Your task to perform on an android device: see tabs open on other devices in the chrome app Image 0: 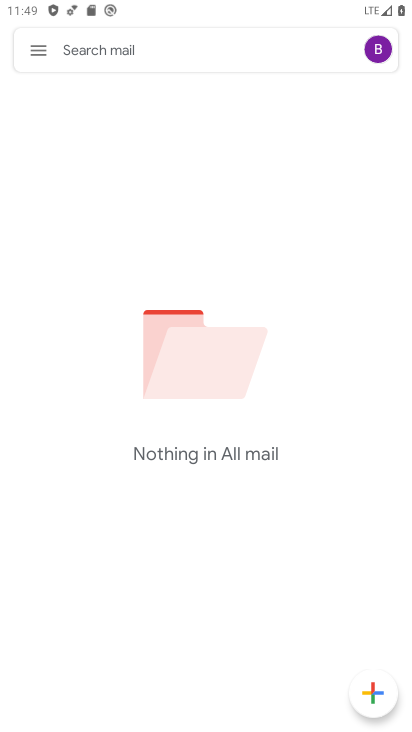
Step 0: press home button
Your task to perform on an android device: see tabs open on other devices in the chrome app Image 1: 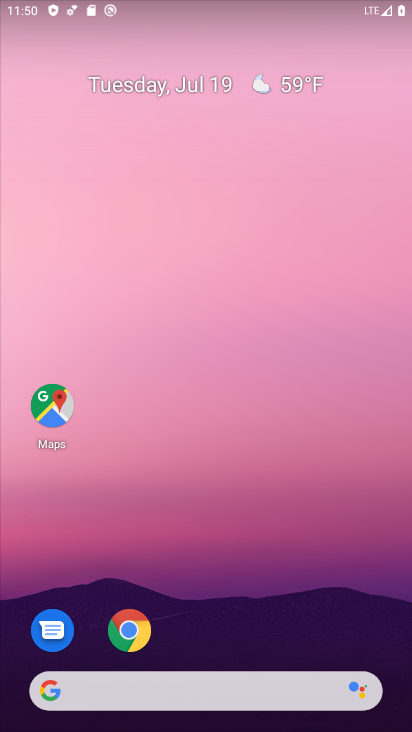
Step 1: drag from (188, 632) to (217, 137)
Your task to perform on an android device: see tabs open on other devices in the chrome app Image 2: 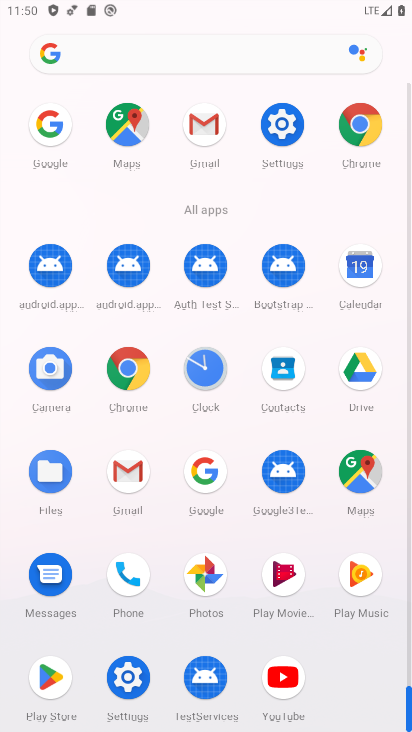
Step 2: click (343, 116)
Your task to perform on an android device: see tabs open on other devices in the chrome app Image 3: 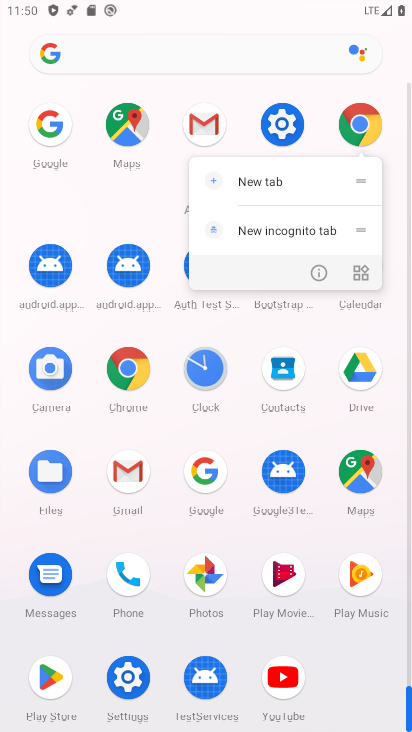
Step 3: click (373, 137)
Your task to perform on an android device: see tabs open on other devices in the chrome app Image 4: 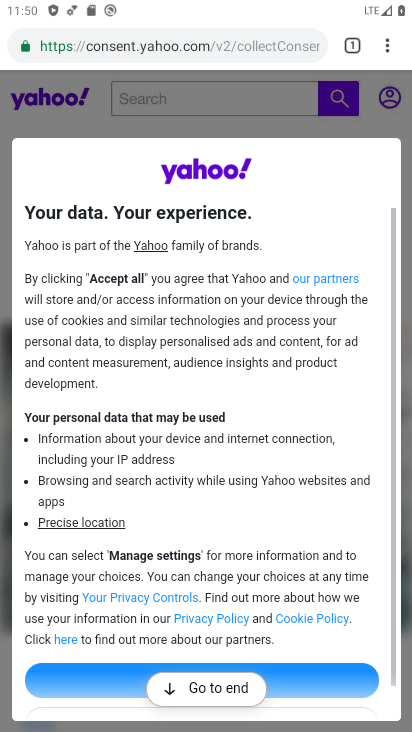
Step 4: task complete